Your task to perform on an android device: Check the news Image 0: 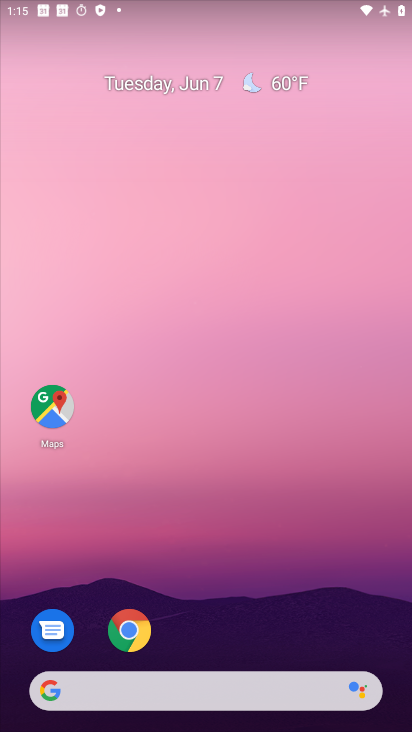
Step 0: drag from (319, 621) to (145, 20)
Your task to perform on an android device: Check the news Image 1: 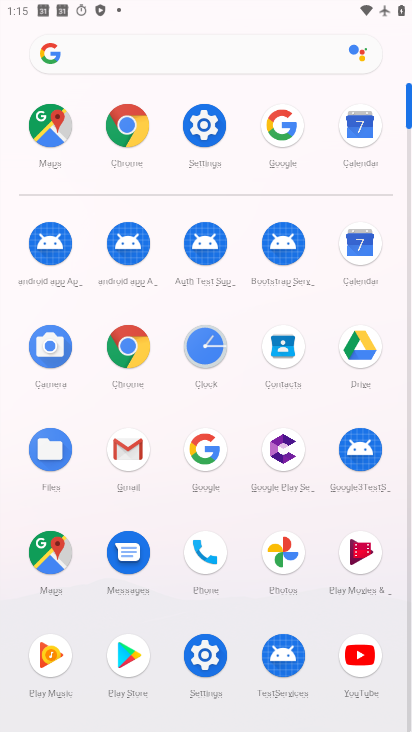
Step 1: click (199, 466)
Your task to perform on an android device: Check the news Image 2: 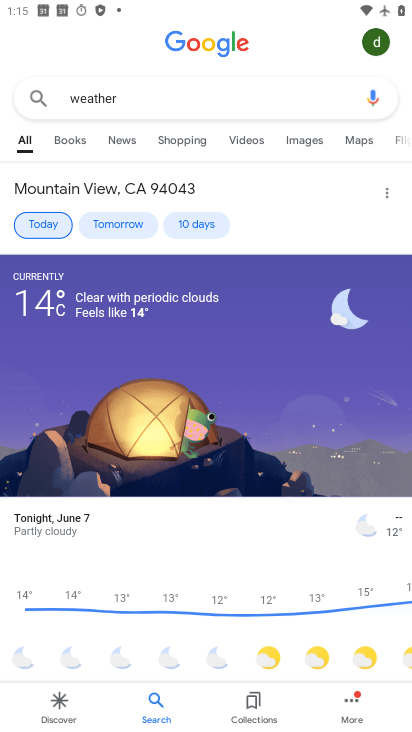
Step 2: press back button
Your task to perform on an android device: Check the news Image 3: 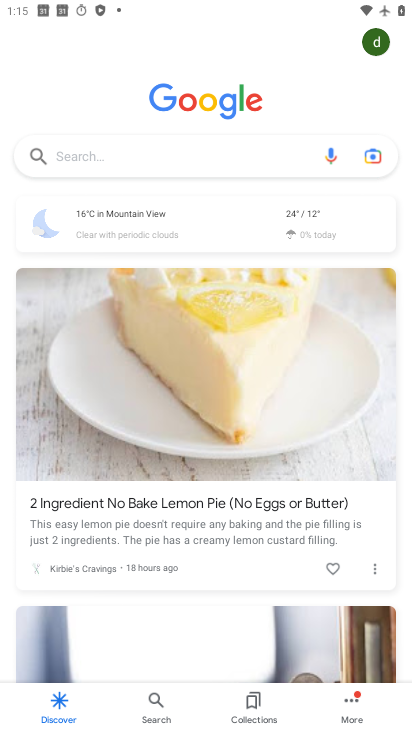
Step 3: click (124, 163)
Your task to perform on an android device: Check the news Image 4: 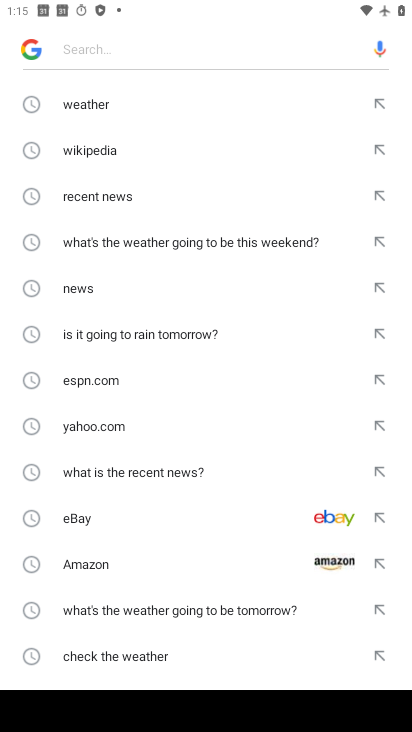
Step 4: click (112, 296)
Your task to perform on an android device: Check the news Image 5: 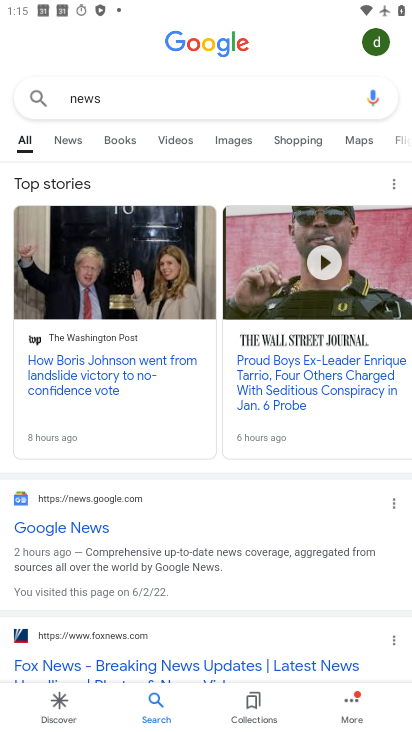
Step 5: task complete